Your task to perform on an android device: turn off airplane mode Image 0: 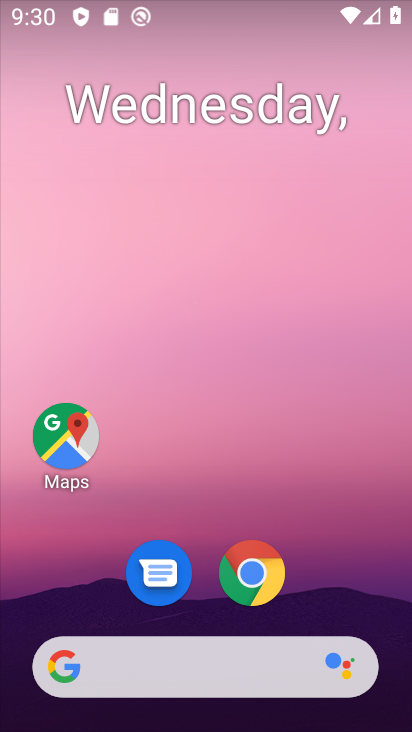
Step 0: drag from (330, 611) to (341, 274)
Your task to perform on an android device: turn off airplane mode Image 1: 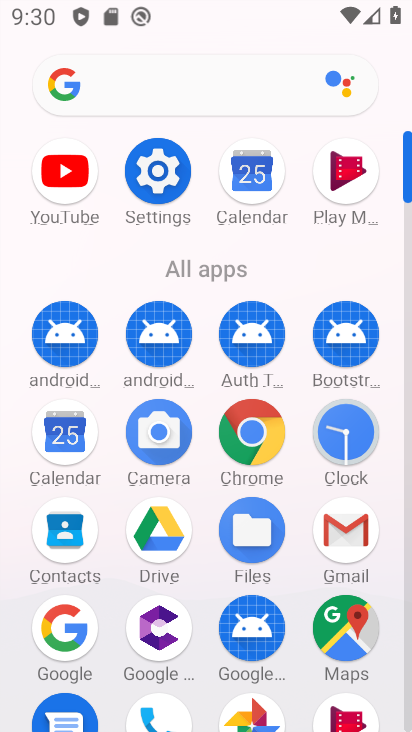
Step 1: click (157, 181)
Your task to perform on an android device: turn off airplane mode Image 2: 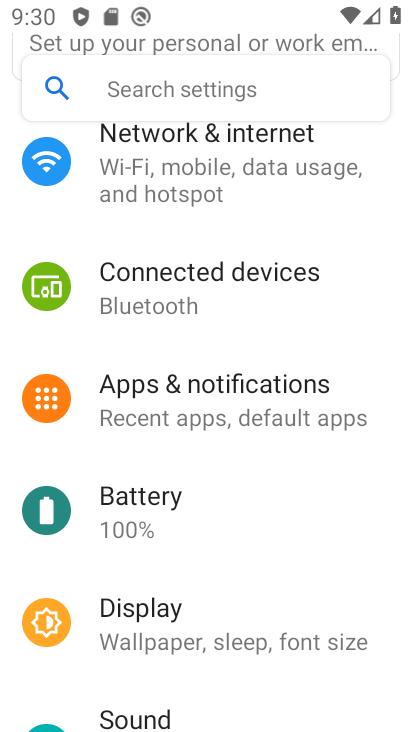
Step 2: click (181, 165)
Your task to perform on an android device: turn off airplane mode Image 3: 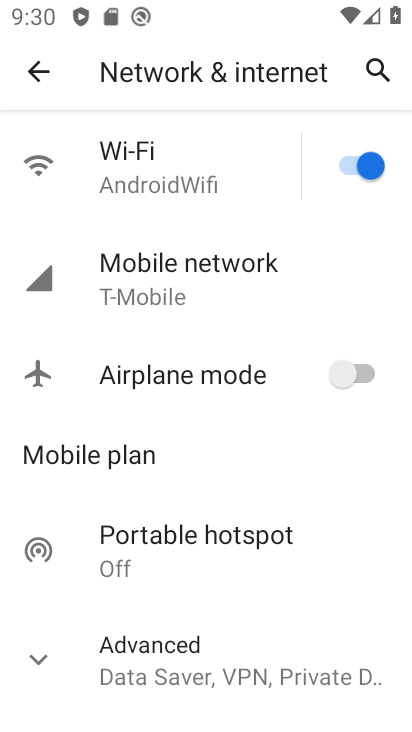
Step 3: task complete